Your task to perform on an android device: Is it going to rain this weekend? Image 0: 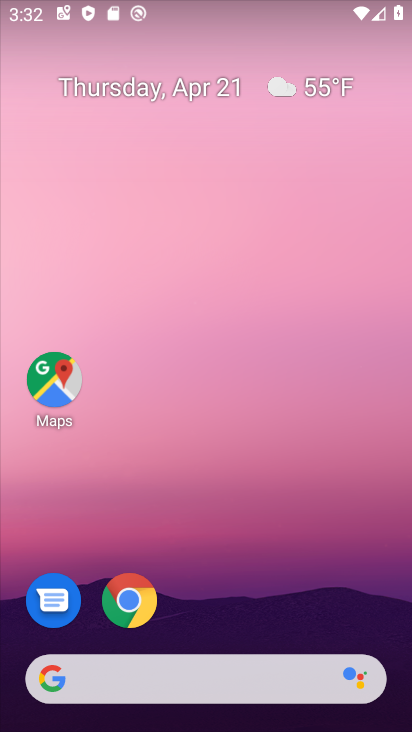
Step 0: click (327, 88)
Your task to perform on an android device: Is it going to rain this weekend? Image 1: 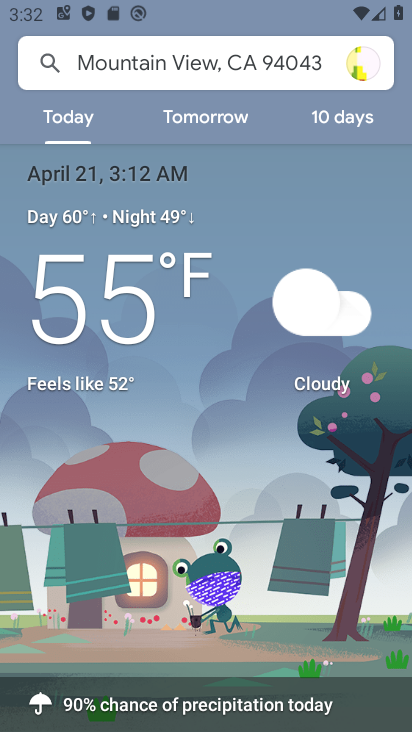
Step 1: click (335, 113)
Your task to perform on an android device: Is it going to rain this weekend? Image 2: 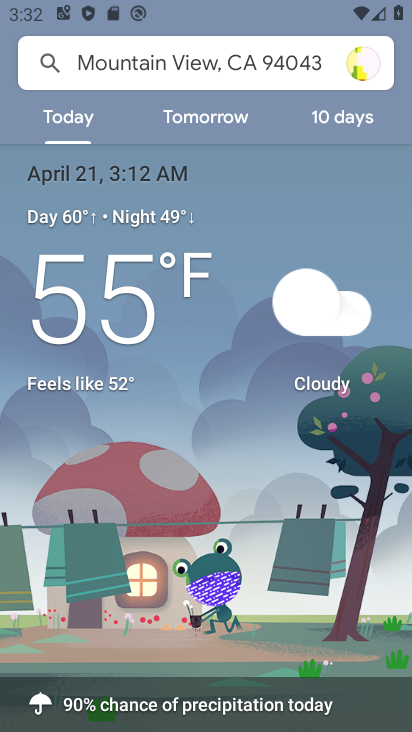
Step 2: click (344, 115)
Your task to perform on an android device: Is it going to rain this weekend? Image 3: 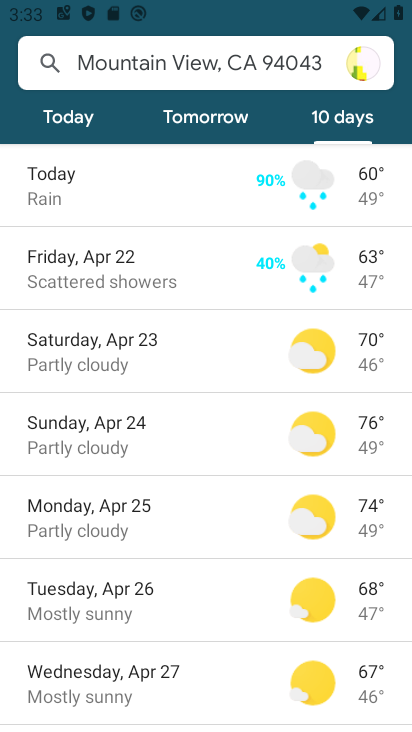
Step 3: click (152, 345)
Your task to perform on an android device: Is it going to rain this weekend? Image 4: 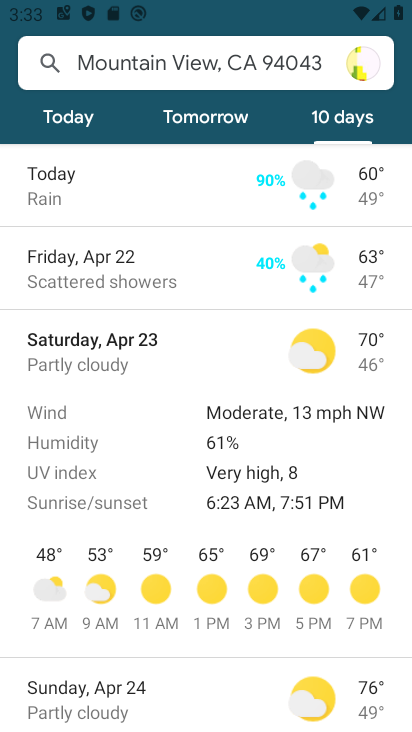
Step 4: task complete